Your task to perform on an android device: Go to Maps Image 0: 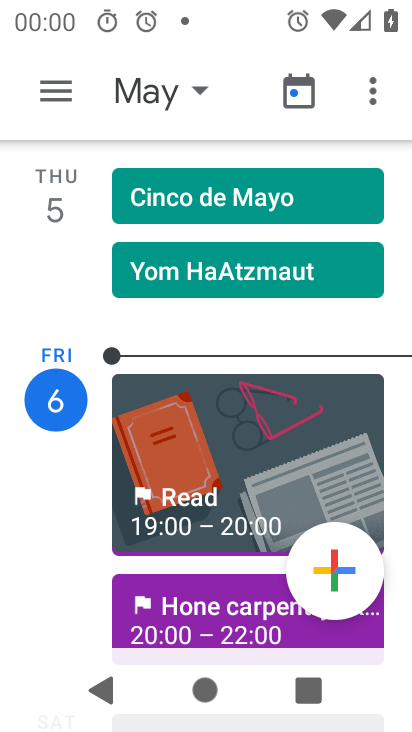
Step 0: press home button
Your task to perform on an android device: Go to Maps Image 1: 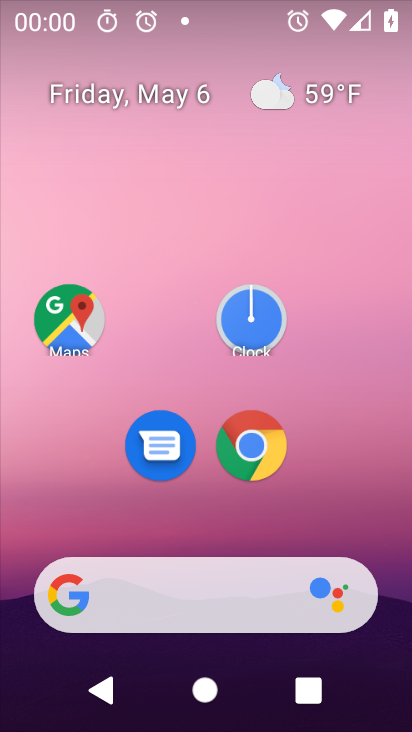
Step 1: click (77, 313)
Your task to perform on an android device: Go to Maps Image 2: 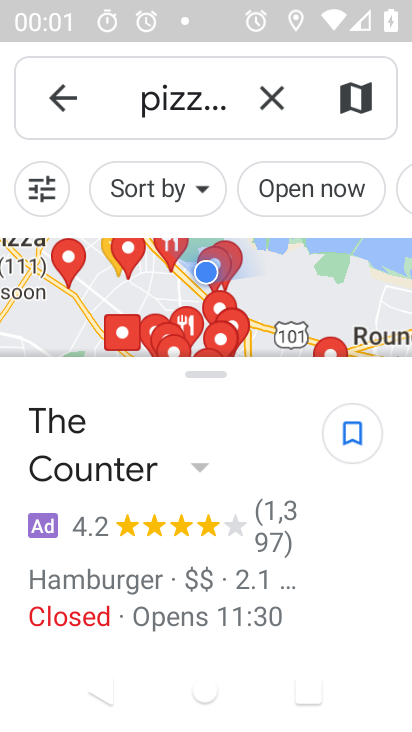
Step 2: task complete